Your task to perform on an android device: turn off location Image 0: 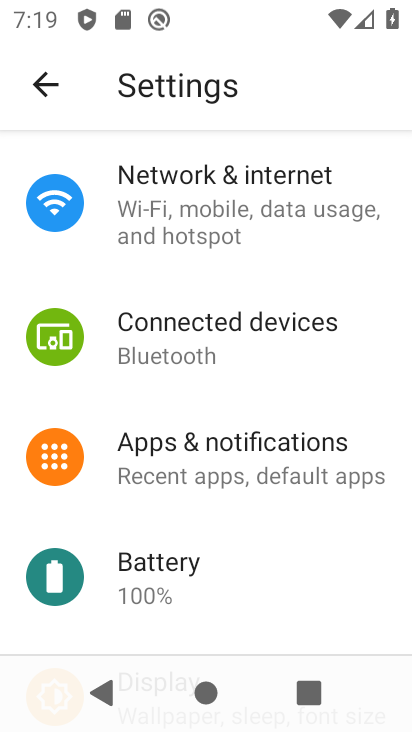
Step 0: press home button
Your task to perform on an android device: turn off location Image 1: 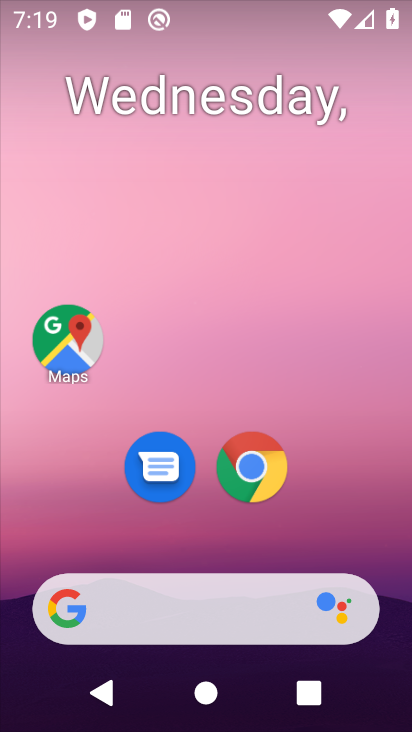
Step 1: click (373, 41)
Your task to perform on an android device: turn off location Image 2: 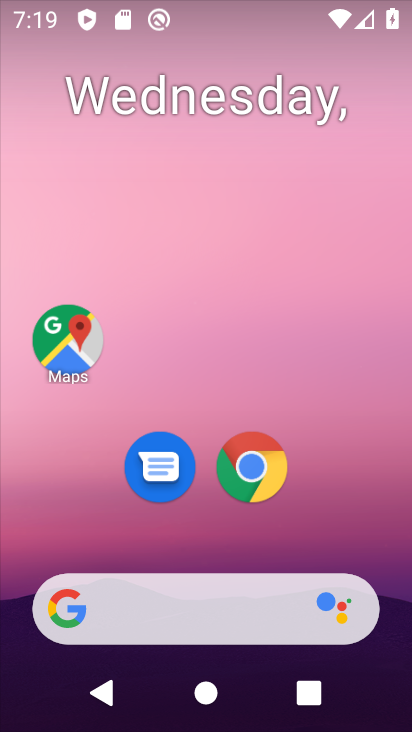
Step 2: drag from (371, 563) to (362, 125)
Your task to perform on an android device: turn off location Image 3: 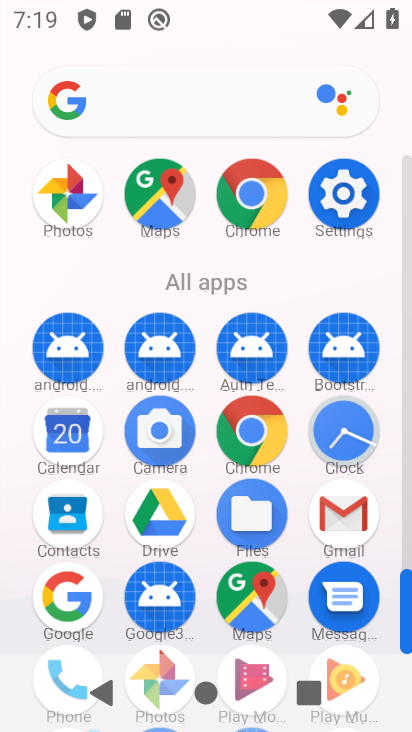
Step 3: click (339, 203)
Your task to perform on an android device: turn off location Image 4: 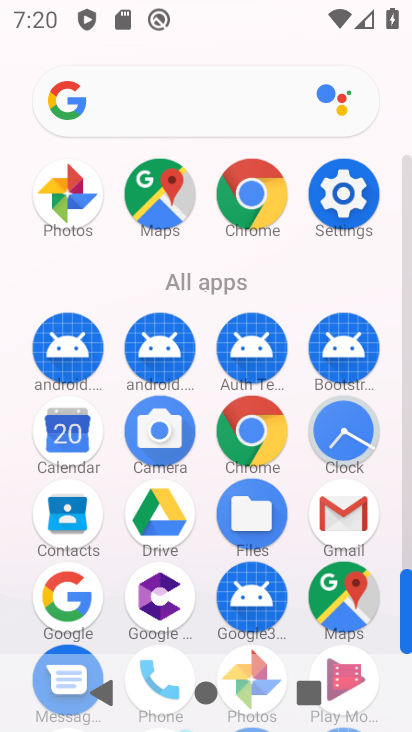
Step 4: click (343, 204)
Your task to perform on an android device: turn off location Image 5: 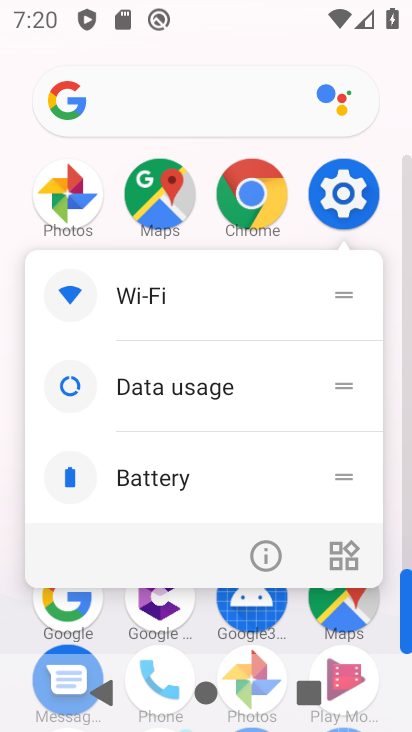
Step 5: click (343, 204)
Your task to perform on an android device: turn off location Image 6: 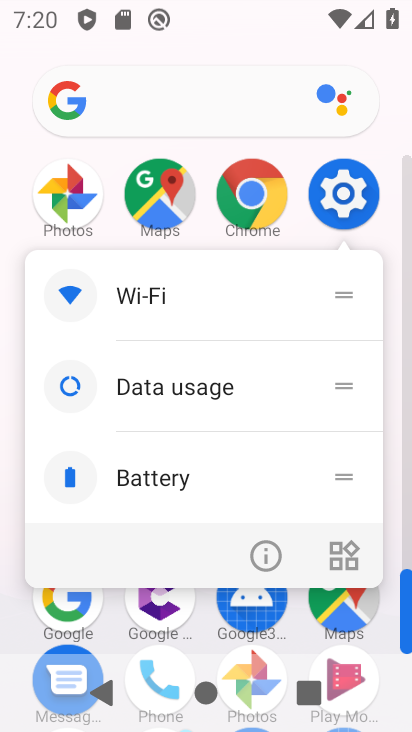
Step 6: click (343, 201)
Your task to perform on an android device: turn off location Image 7: 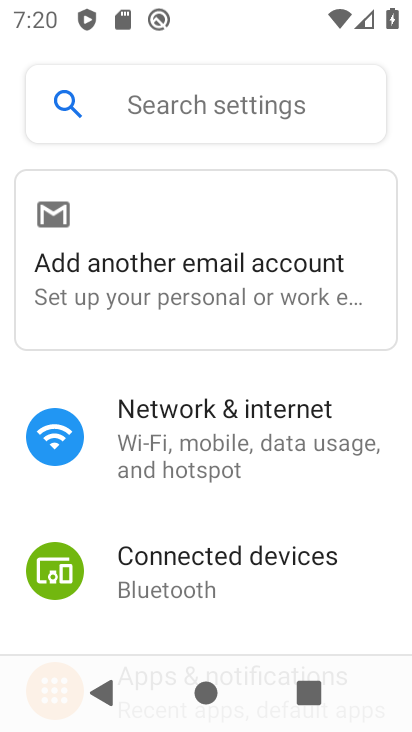
Step 7: drag from (395, 407) to (409, 187)
Your task to perform on an android device: turn off location Image 8: 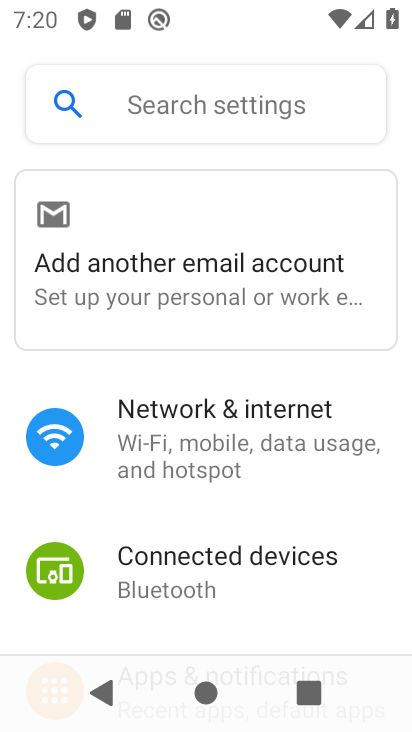
Step 8: drag from (375, 524) to (364, 109)
Your task to perform on an android device: turn off location Image 9: 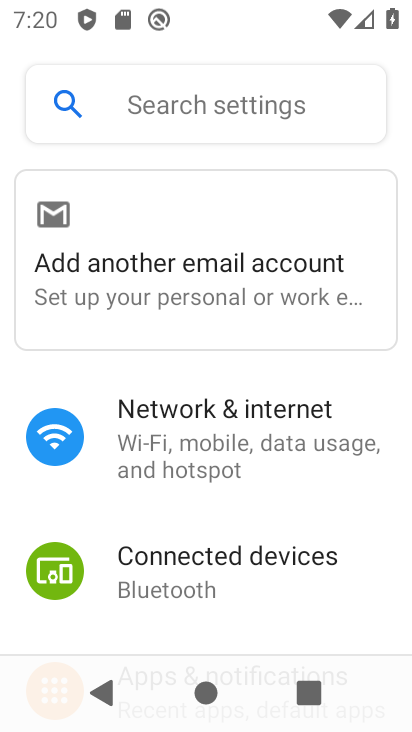
Step 9: drag from (383, 614) to (387, 116)
Your task to perform on an android device: turn off location Image 10: 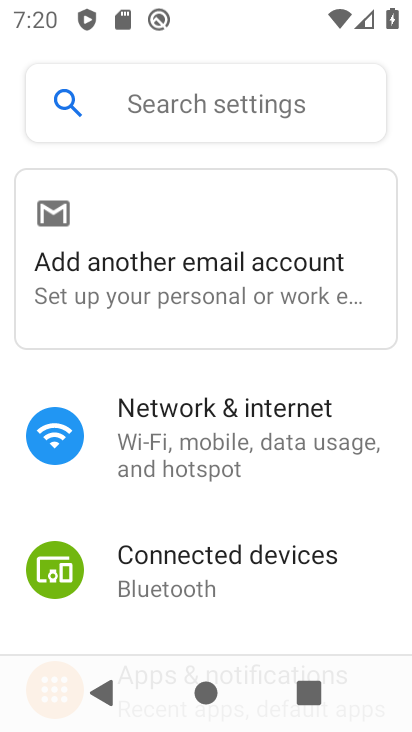
Step 10: drag from (378, 624) to (400, 147)
Your task to perform on an android device: turn off location Image 11: 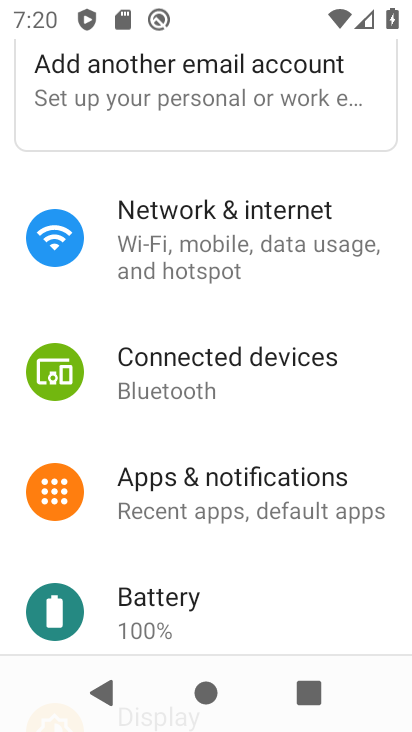
Step 11: drag from (342, 619) to (389, 142)
Your task to perform on an android device: turn off location Image 12: 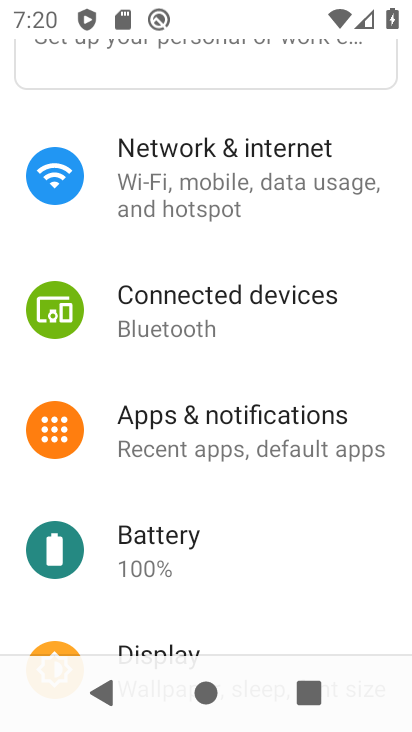
Step 12: drag from (362, 603) to (389, 77)
Your task to perform on an android device: turn off location Image 13: 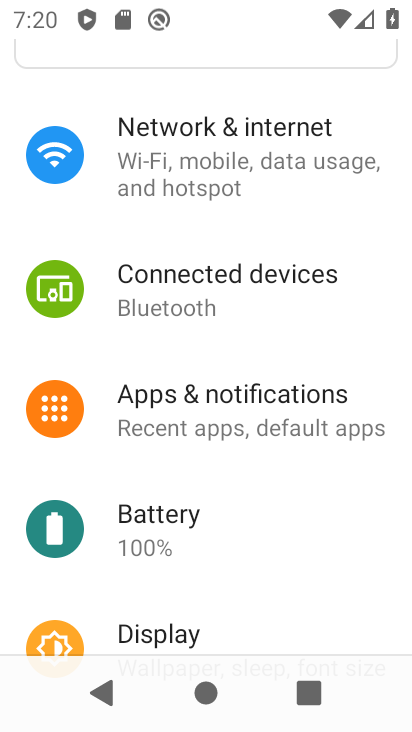
Step 13: drag from (340, 618) to (303, 104)
Your task to perform on an android device: turn off location Image 14: 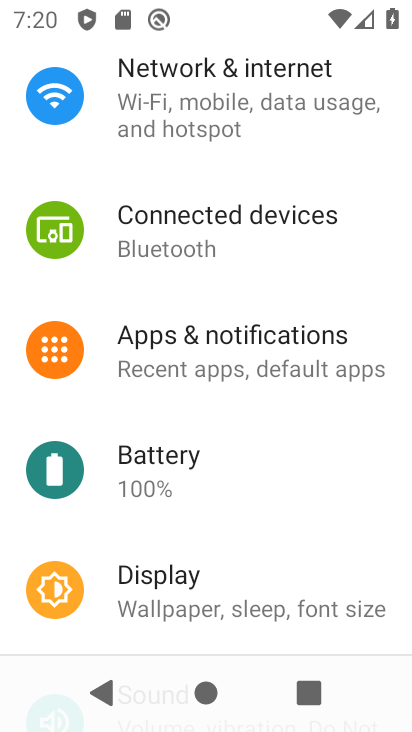
Step 14: drag from (319, 622) to (309, 281)
Your task to perform on an android device: turn off location Image 15: 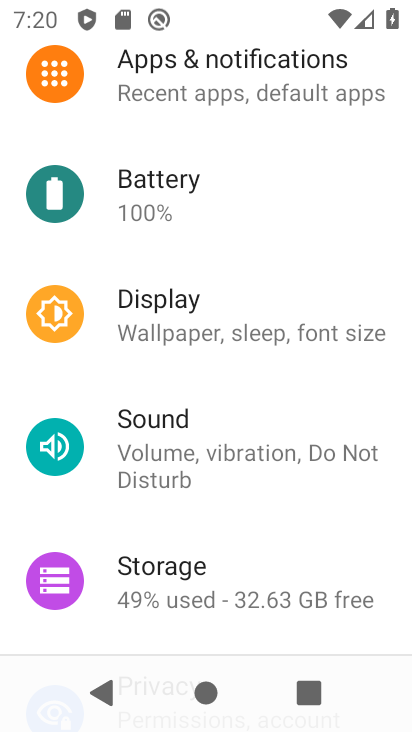
Step 15: drag from (322, 631) to (325, 185)
Your task to perform on an android device: turn off location Image 16: 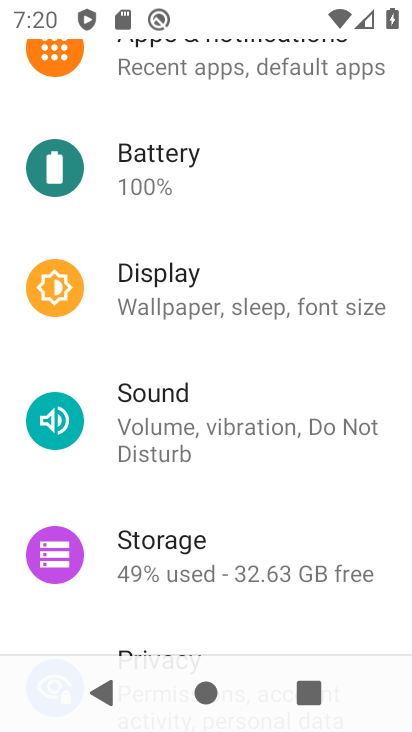
Step 16: drag from (281, 634) to (275, 258)
Your task to perform on an android device: turn off location Image 17: 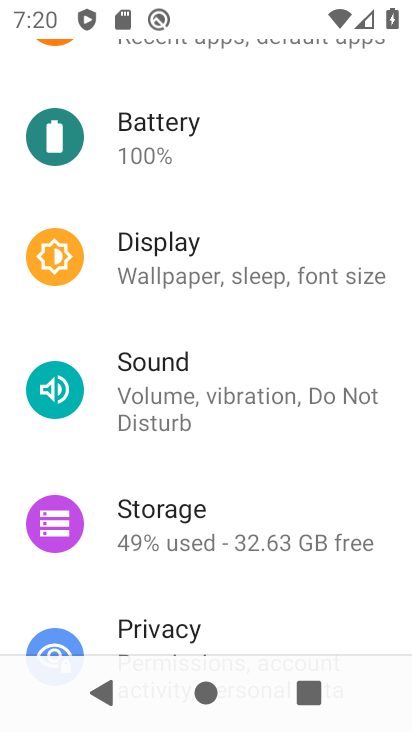
Step 17: drag from (294, 614) to (286, 176)
Your task to perform on an android device: turn off location Image 18: 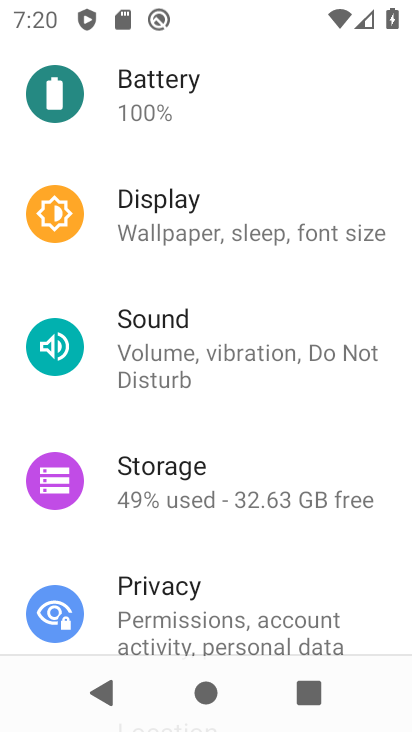
Step 18: drag from (315, 262) to (306, 148)
Your task to perform on an android device: turn off location Image 19: 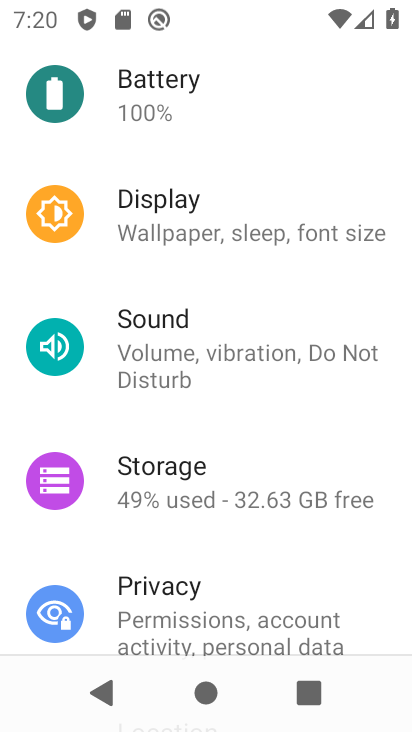
Step 19: drag from (320, 649) to (346, 358)
Your task to perform on an android device: turn off location Image 20: 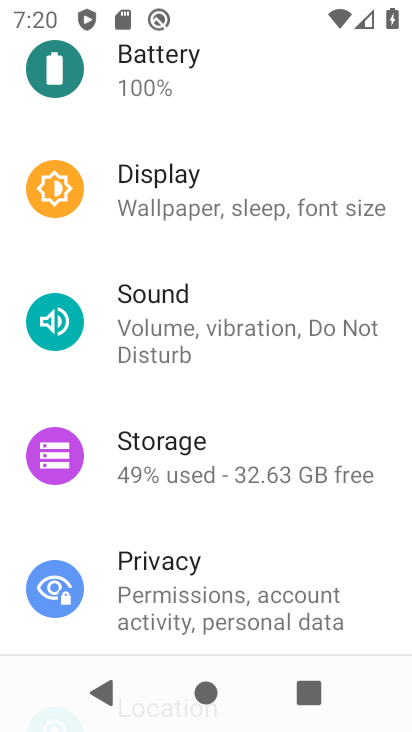
Step 20: drag from (330, 604) to (315, 85)
Your task to perform on an android device: turn off location Image 21: 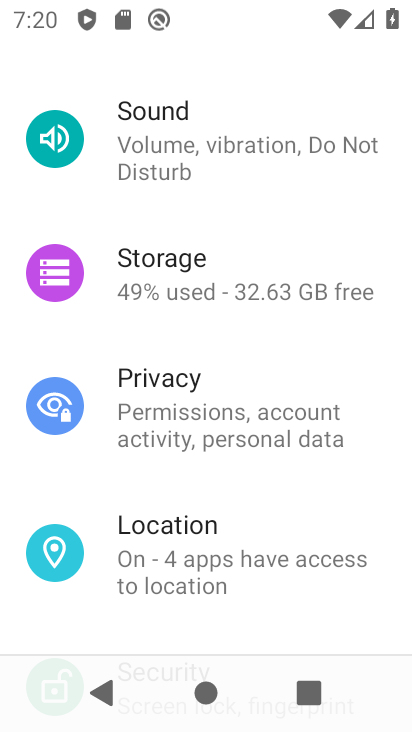
Step 21: click (161, 556)
Your task to perform on an android device: turn off location Image 22: 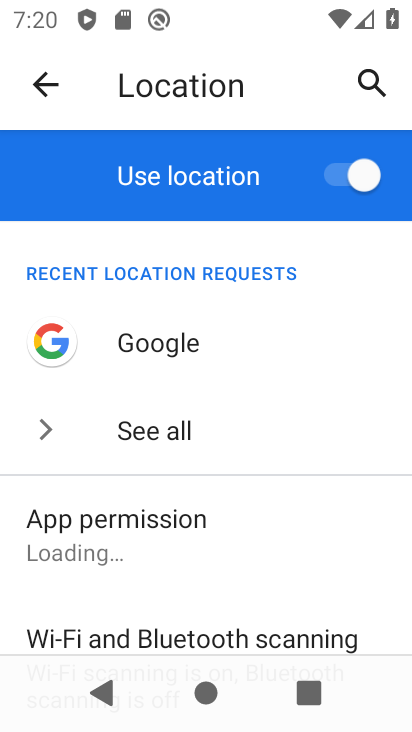
Step 22: click (336, 176)
Your task to perform on an android device: turn off location Image 23: 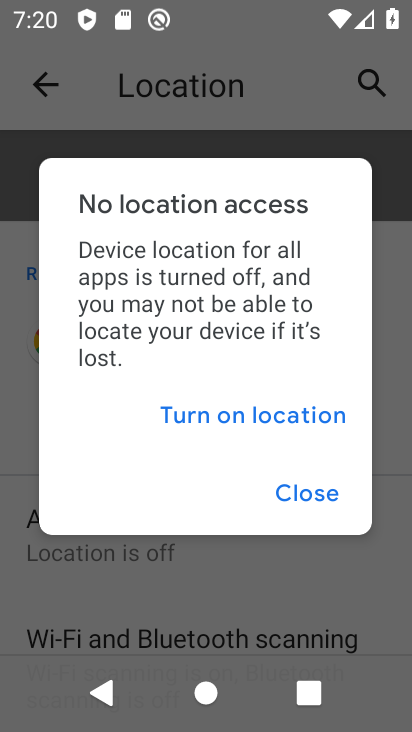
Step 23: click (312, 491)
Your task to perform on an android device: turn off location Image 24: 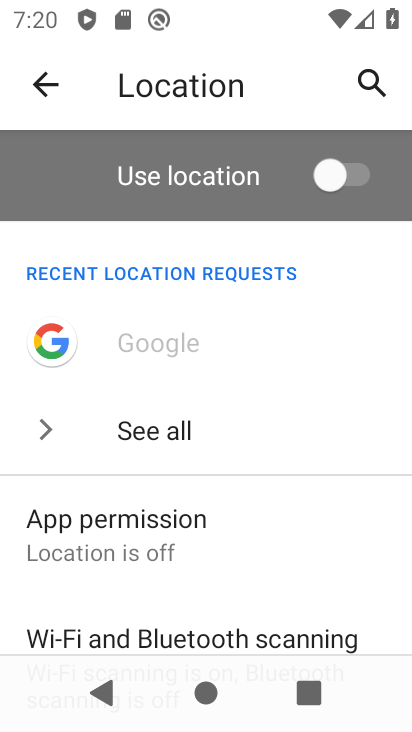
Step 24: task complete